Your task to perform on an android device: all mails in gmail Image 0: 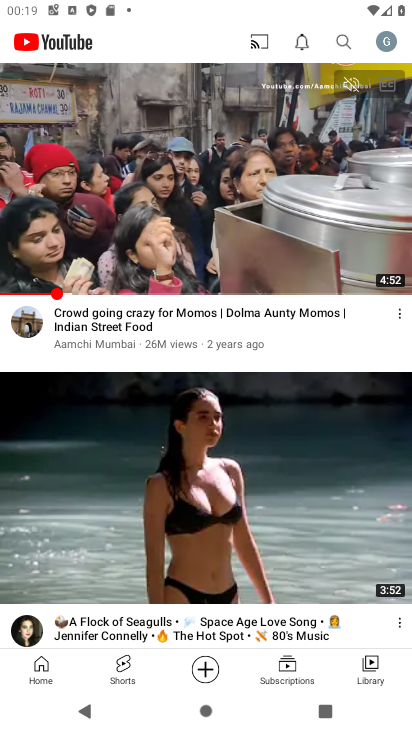
Step 0: press home button
Your task to perform on an android device: all mails in gmail Image 1: 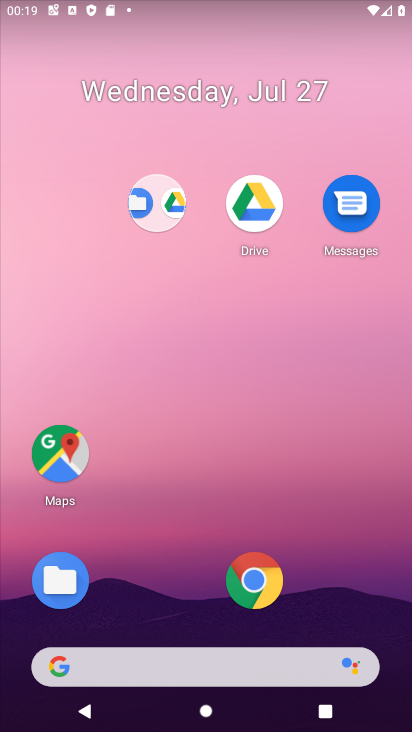
Step 1: drag from (124, 619) to (108, 108)
Your task to perform on an android device: all mails in gmail Image 2: 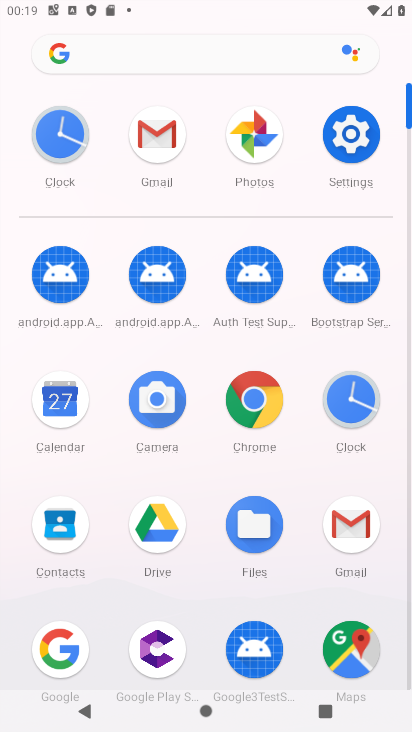
Step 2: click (153, 152)
Your task to perform on an android device: all mails in gmail Image 3: 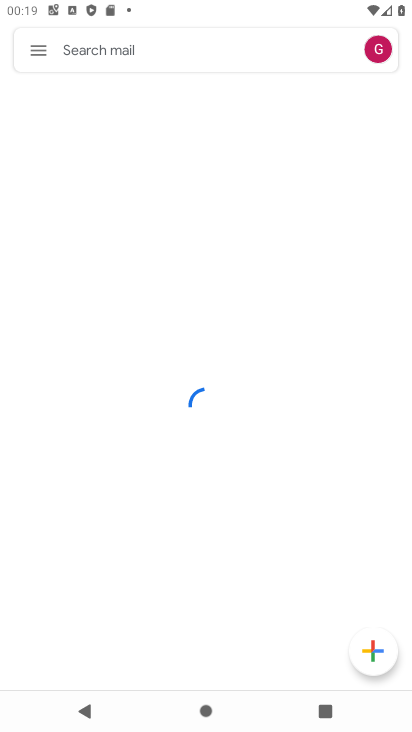
Step 3: click (27, 48)
Your task to perform on an android device: all mails in gmail Image 4: 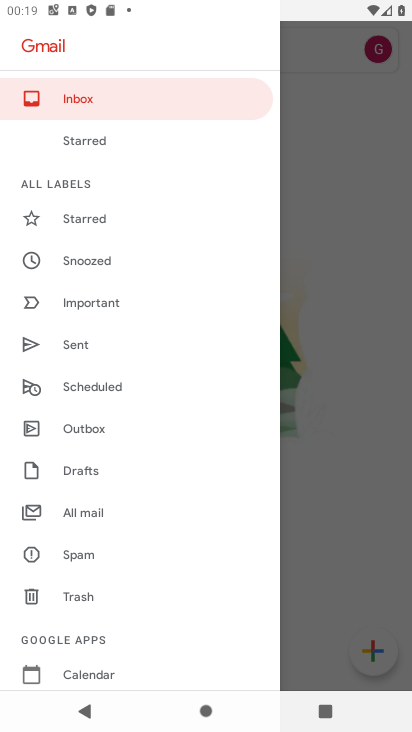
Step 4: drag from (156, 625) to (145, 196)
Your task to perform on an android device: all mails in gmail Image 5: 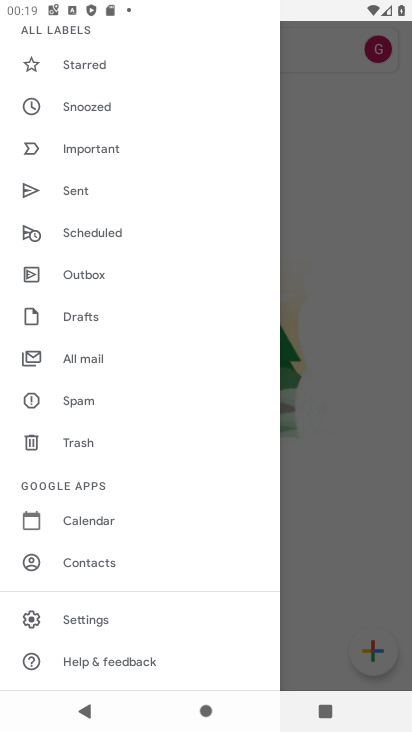
Step 5: click (62, 351)
Your task to perform on an android device: all mails in gmail Image 6: 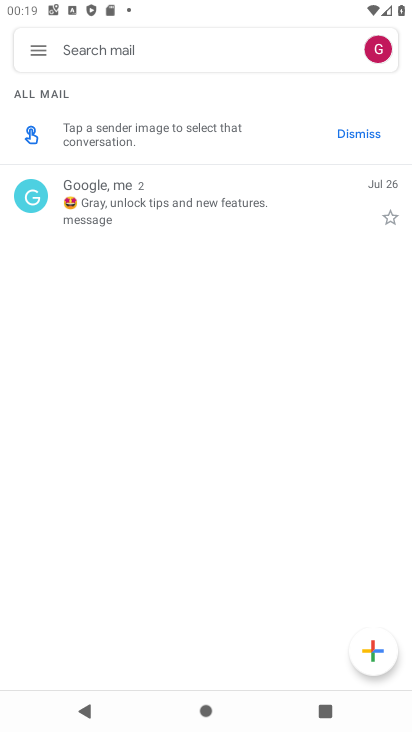
Step 6: task complete